Your task to perform on an android device: see creations saved in the google photos Image 0: 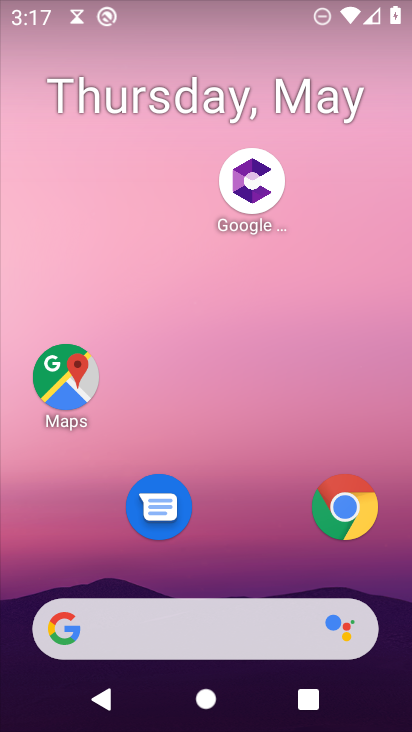
Step 0: drag from (219, 549) to (154, 90)
Your task to perform on an android device: see creations saved in the google photos Image 1: 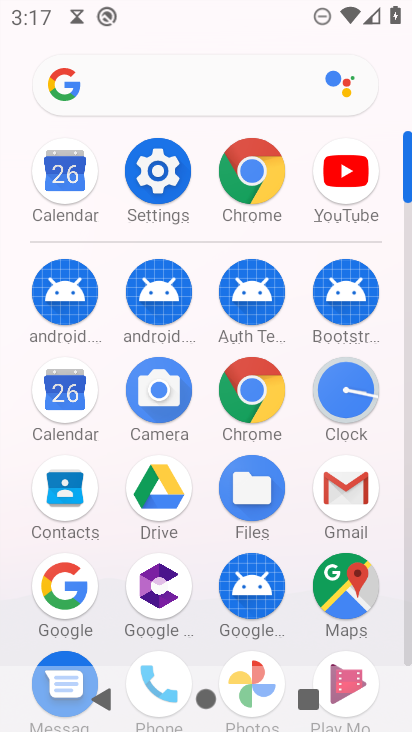
Step 1: drag from (216, 651) to (211, 427)
Your task to perform on an android device: see creations saved in the google photos Image 2: 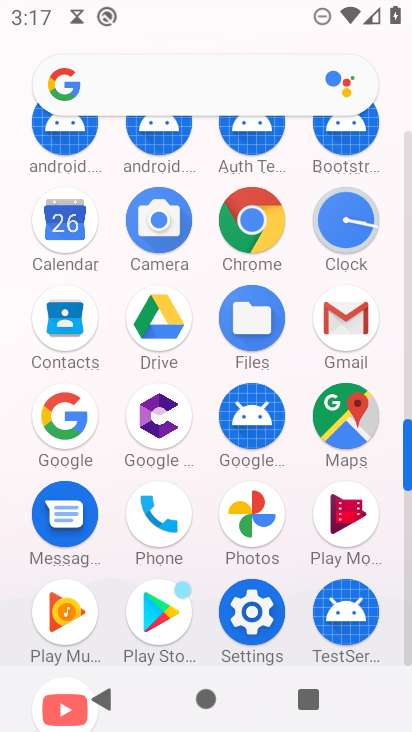
Step 2: click (257, 522)
Your task to perform on an android device: see creations saved in the google photos Image 3: 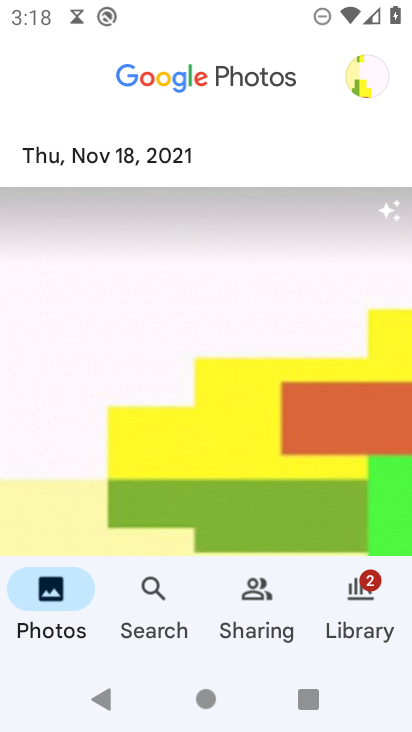
Step 3: click (155, 593)
Your task to perform on an android device: see creations saved in the google photos Image 4: 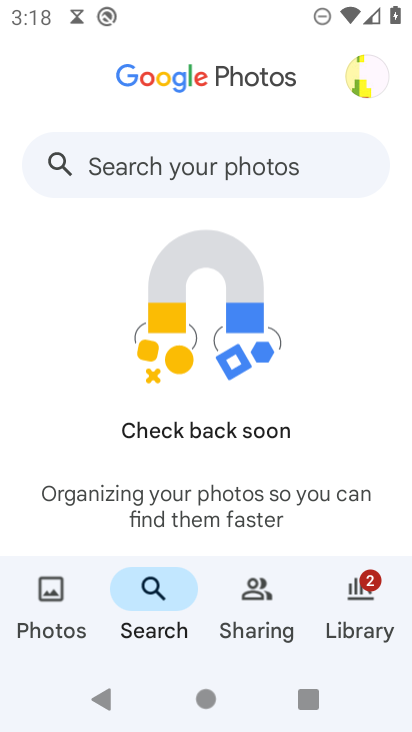
Step 4: task complete